Your task to perform on an android device: Go to calendar. Show me events next week Image 0: 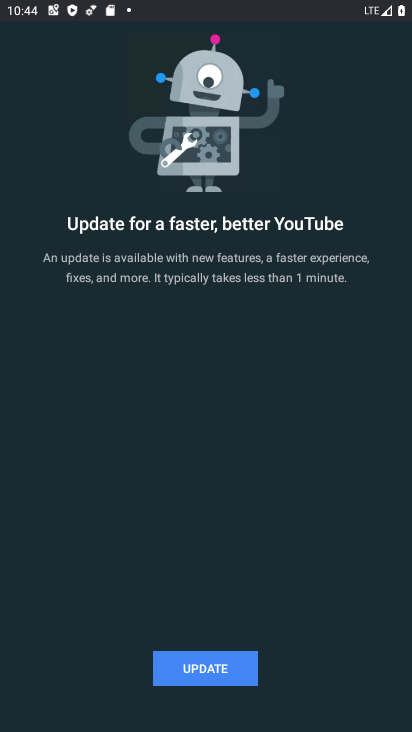
Step 0: press home button
Your task to perform on an android device: Go to calendar. Show me events next week Image 1: 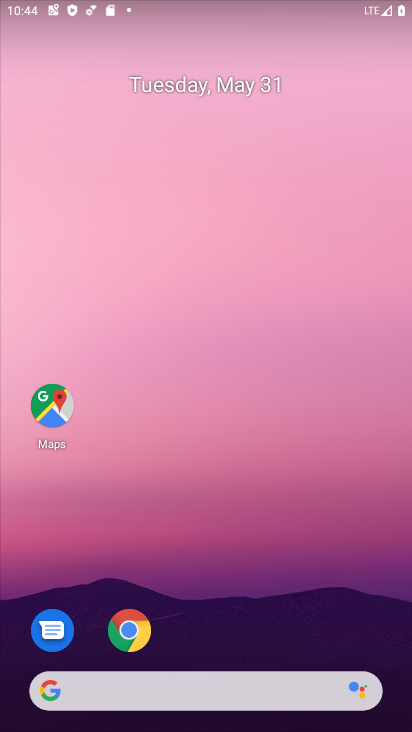
Step 1: drag from (261, 537) to (304, 70)
Your task to perform on an android device: Go to calendar. Show me events next week Image 2: 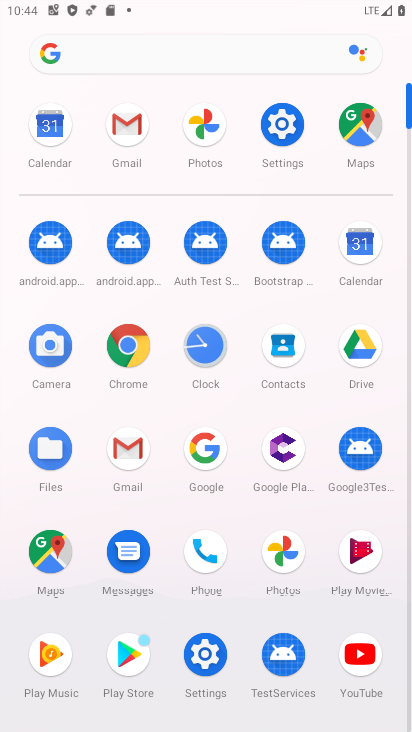
Step 2: click (361, 248)
Your task to perform on an android device: Go to calendar. Show me events next week Image 3: 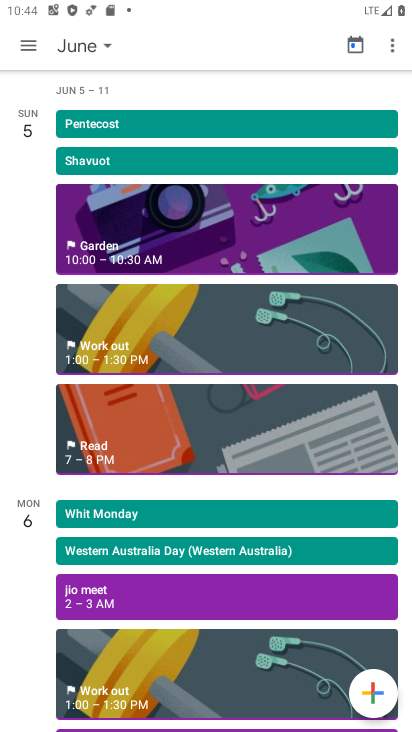
Step 3: click (30, 44)
Your task to perform on an android device: Go to calendar. Show me events next week Image 4: 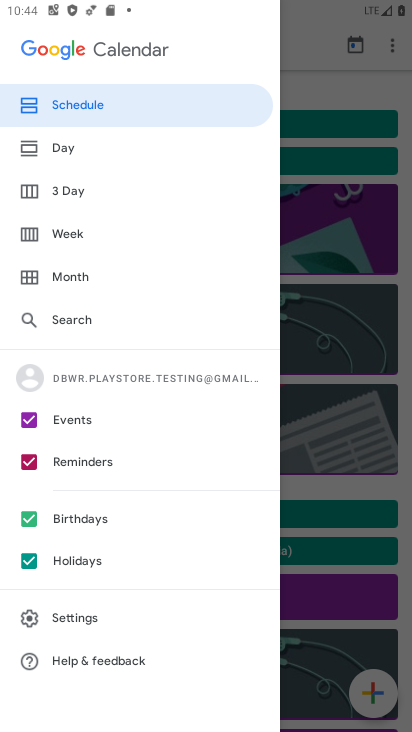
Step 4: click (81, 222)
Your task to perform on an android device: Go to calendar. Show me events next week Image 5: 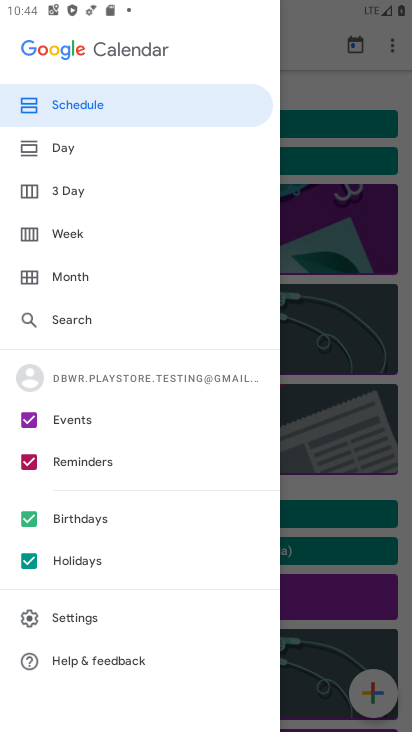
Step 5: click (90, 286)
Your task to perform on an android device: Go to calendar. Show me events next week Image 6: 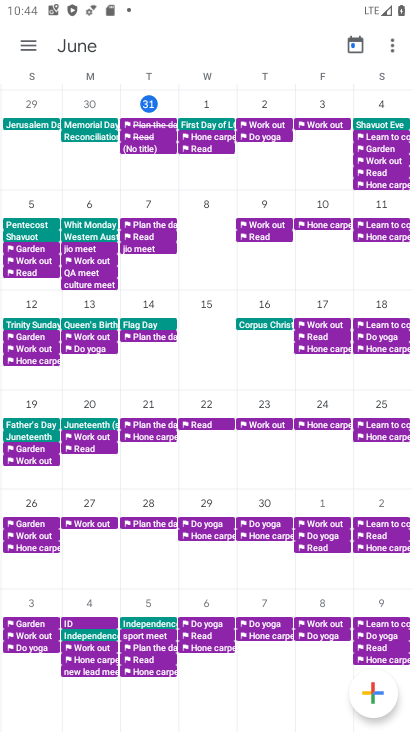
Step 6: task complete